Your task to perform on an android device: Open Google Chrome Image 0: 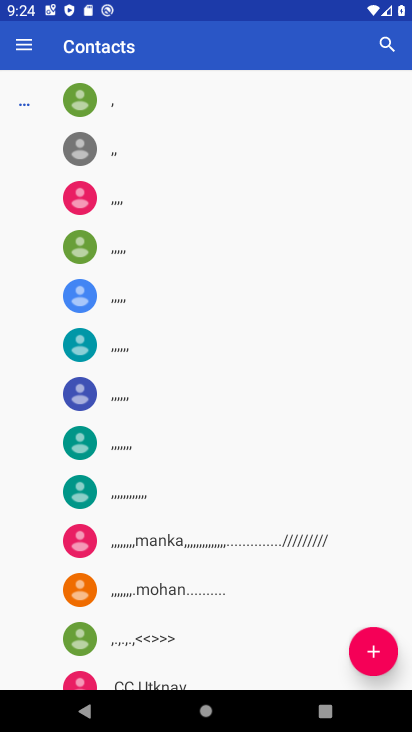
Step 0: press home button
Your task to perform on an android device: Open Google Chrome Image 1: 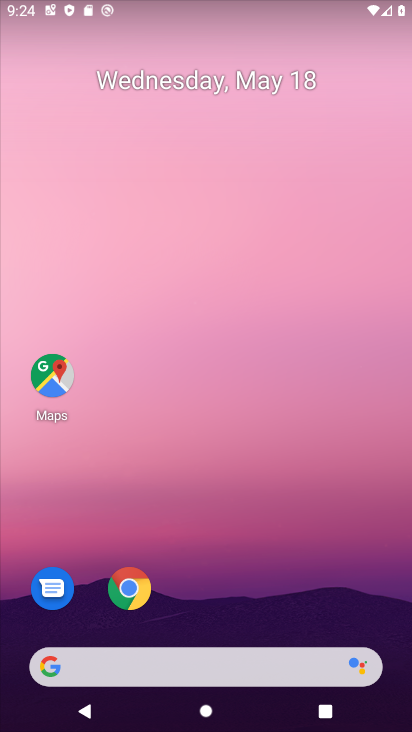
Step 1: drag from (276, 687) to (248, 147)
Your task to perform on an android device: Open Google Chrome Image 2: 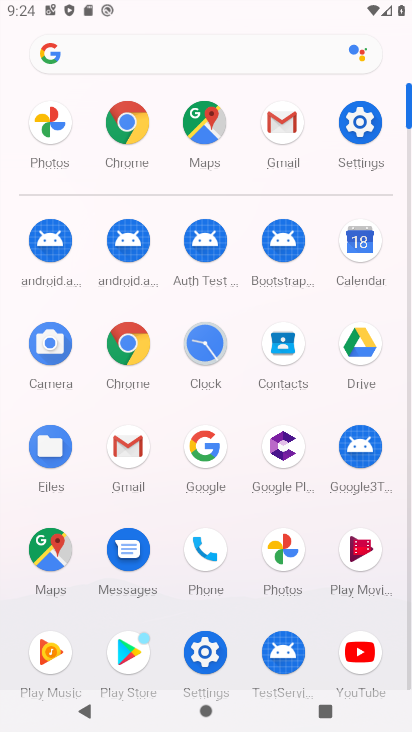
Step 2: click (127, 132)
Your task to perform on an android device: Open Google Chrome Image 3: 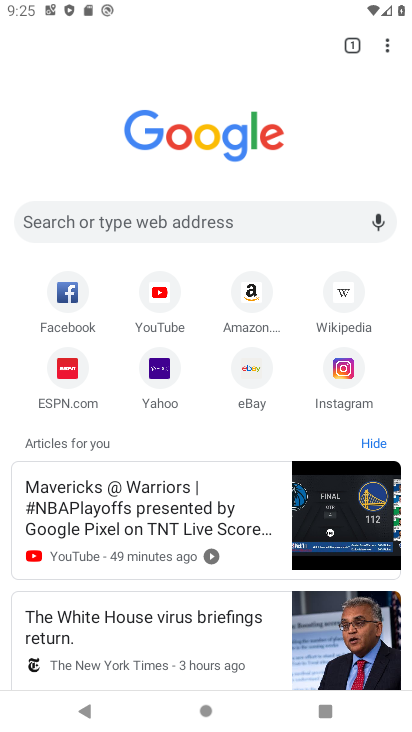
Step 3: task complete